Your task to perform on an android device: Open Google Maps Image 0: 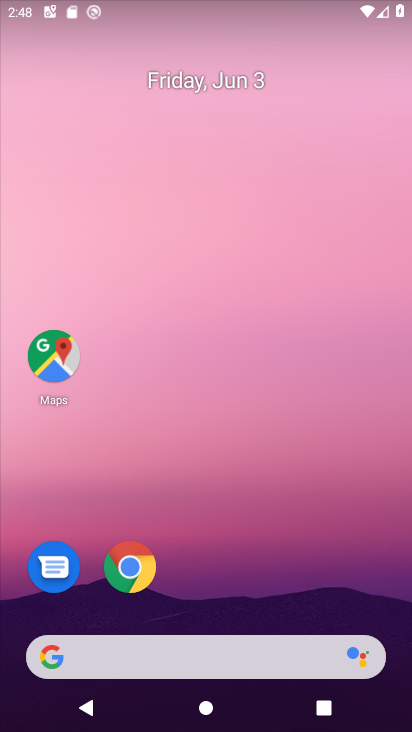
Step 0: click (233, 573)
Your task to perform on an android device: Open Google Maps Image 1: 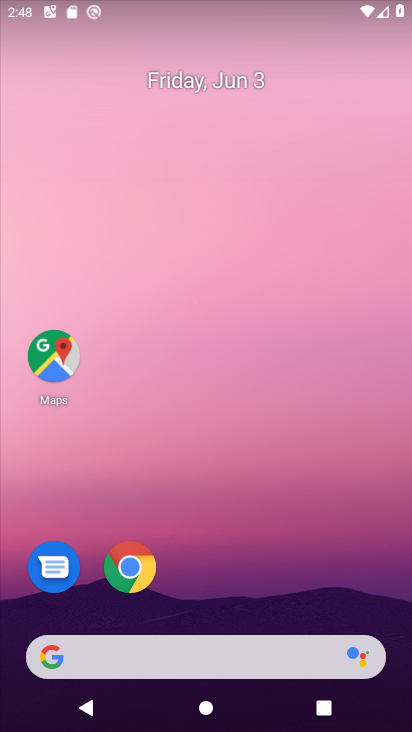
Step 1: click (57, 346)
Your task to perform on an android device: Open Google Maps Image 2: 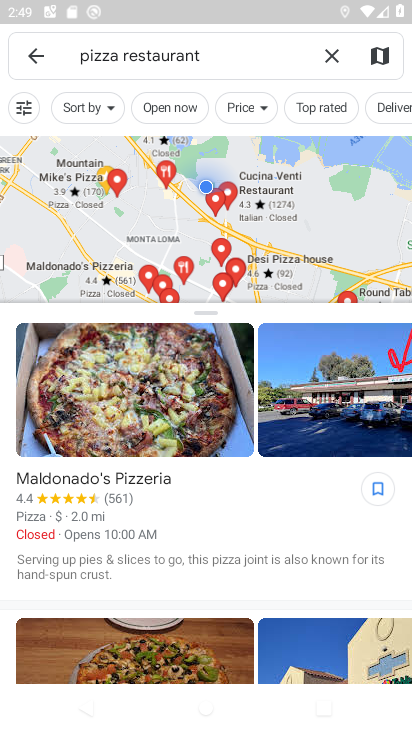
Step 2: task complete